Your task to perform on an android device: delete location history Image 0: 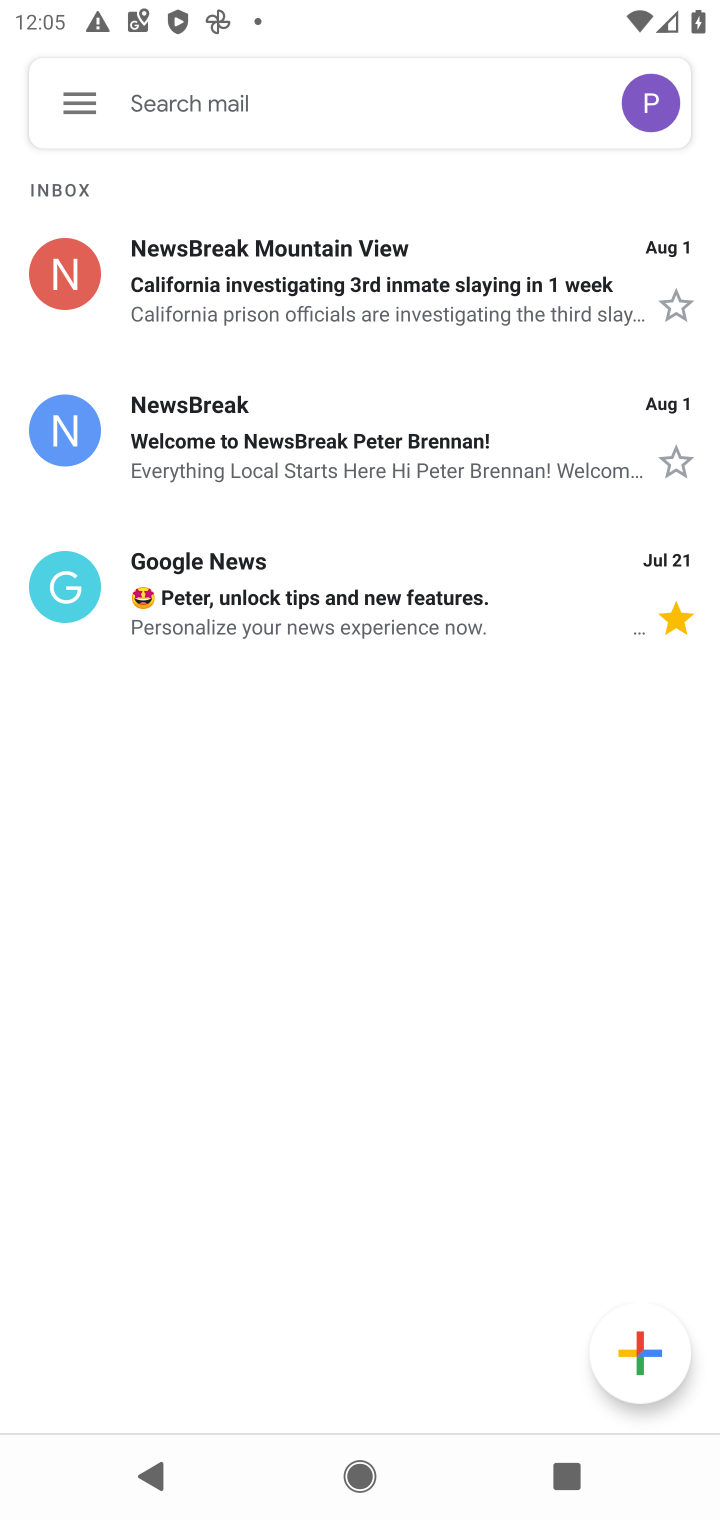
Step 0: press home button
Your task to perform on an android device: delete location history Image 1: 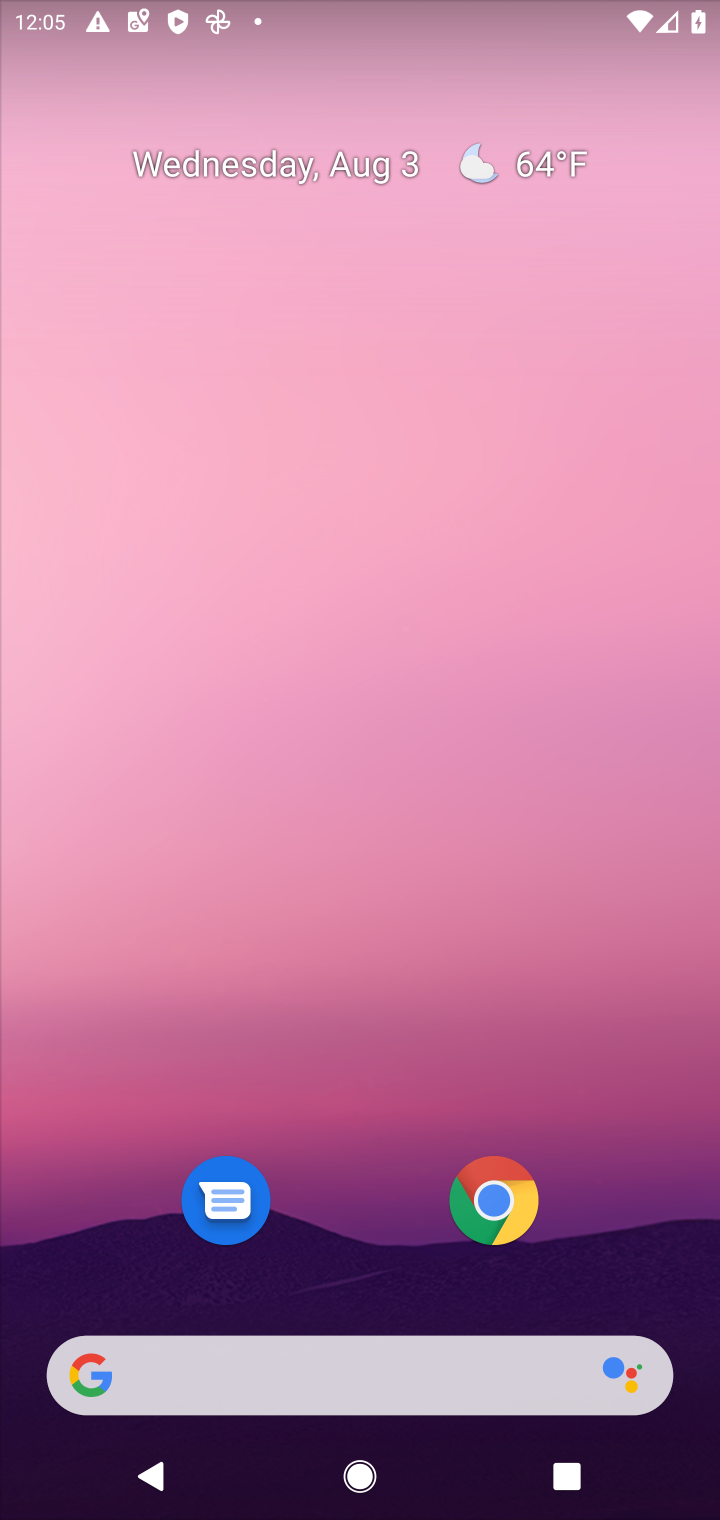
Step 1: drag from (663, 1268) to (534, 506)
Your task to perform on an android device: delete location history Image 2: 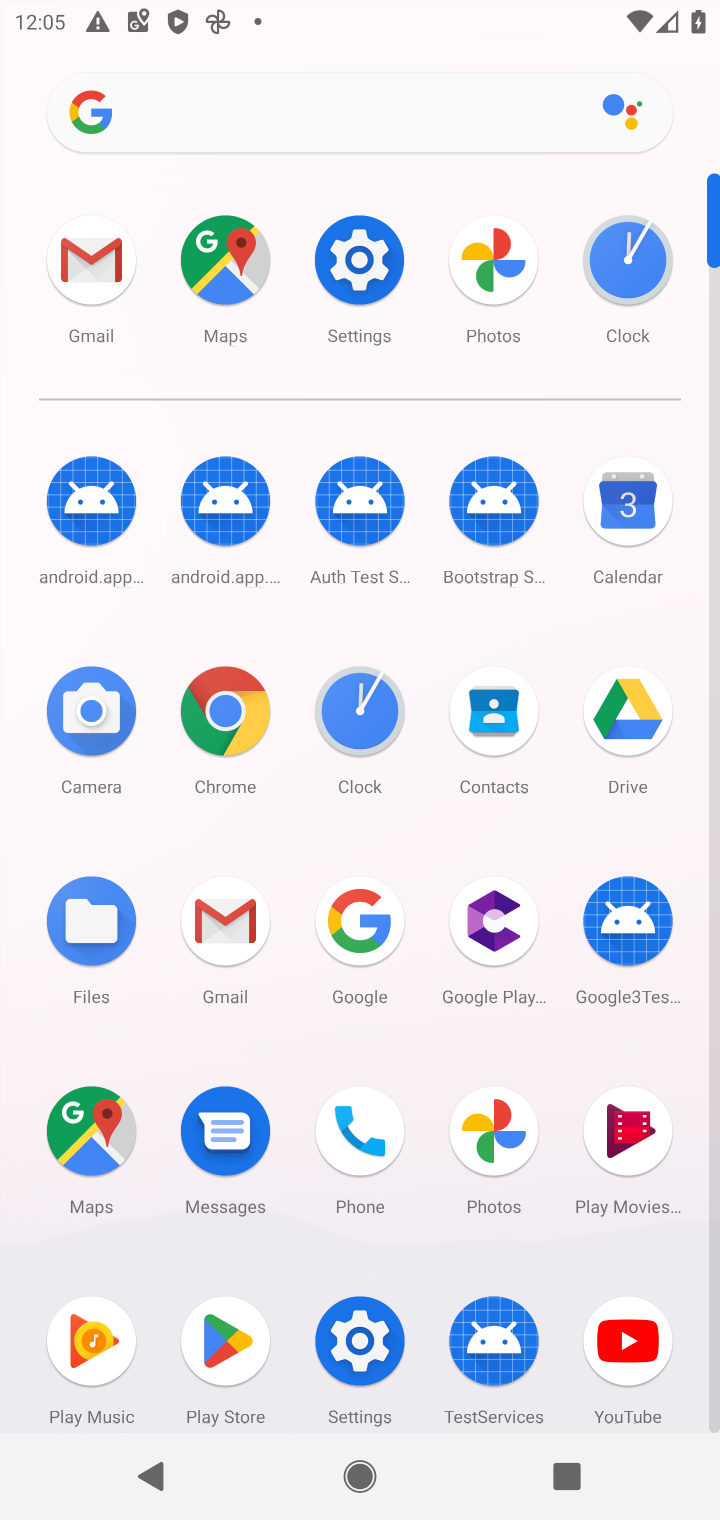
Step 2: click (84, 1129)
Your task to perform on an android device: delete location history Image 3: 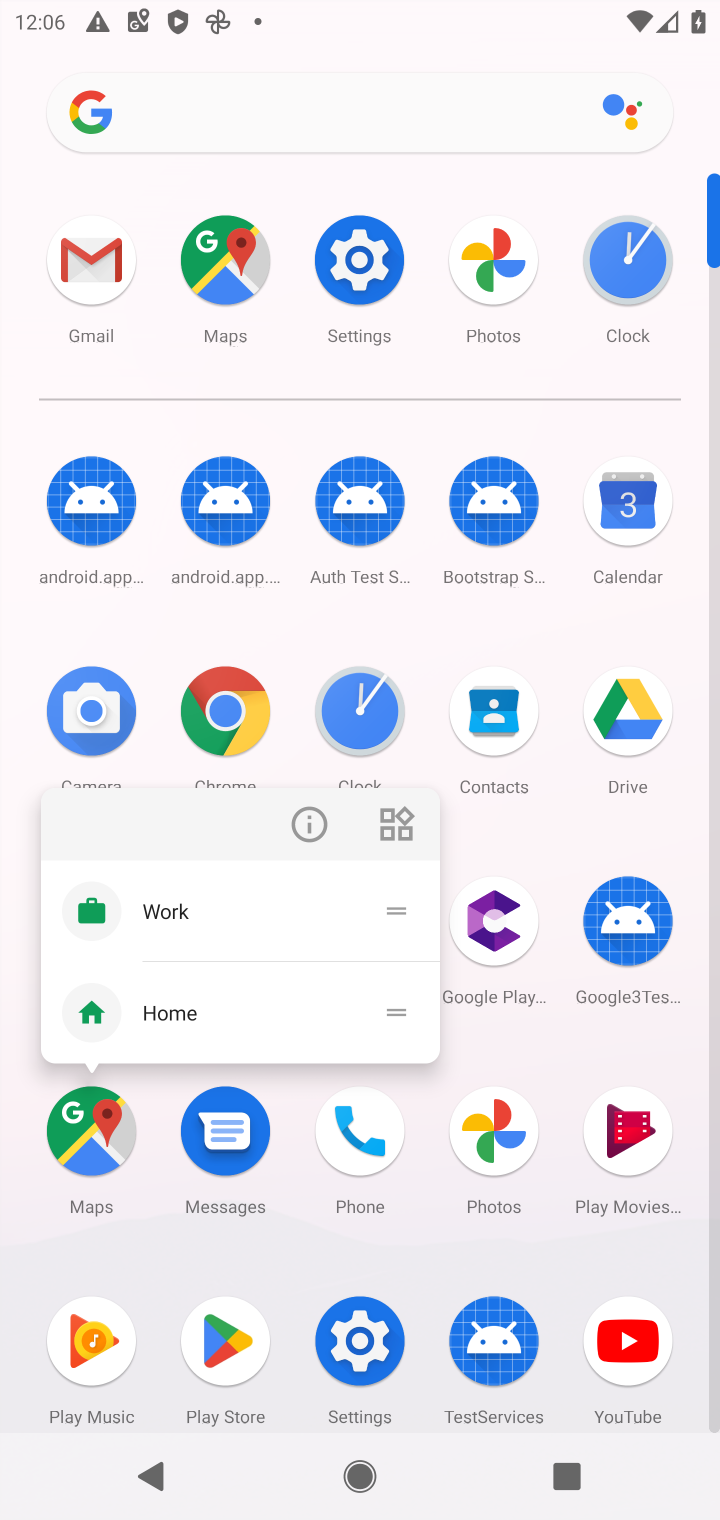
Step 3: click (96, 1130)
Your task to perform on an android device: delete location history Image 4: 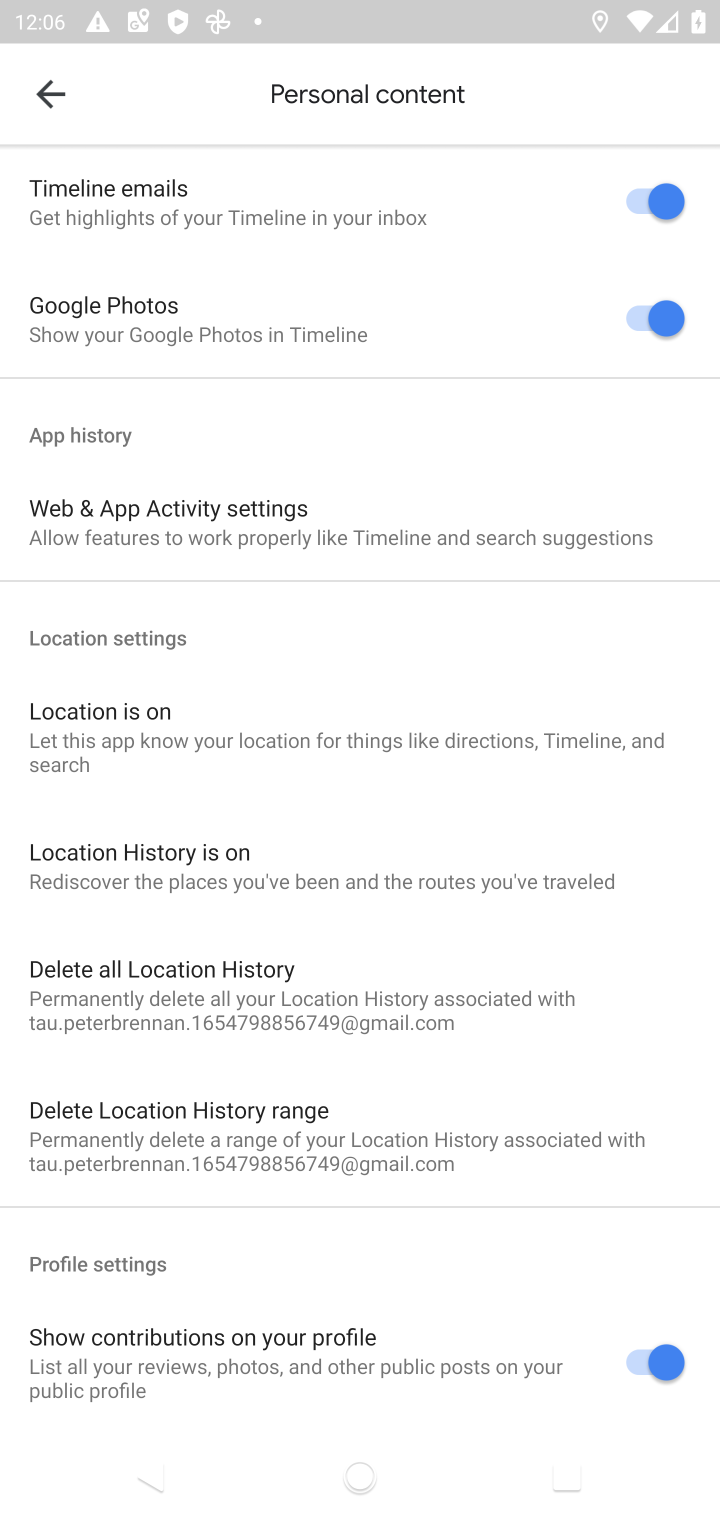
Step 4: click (137, 977)
Your task to perform on an android device: delete location history Image 5: 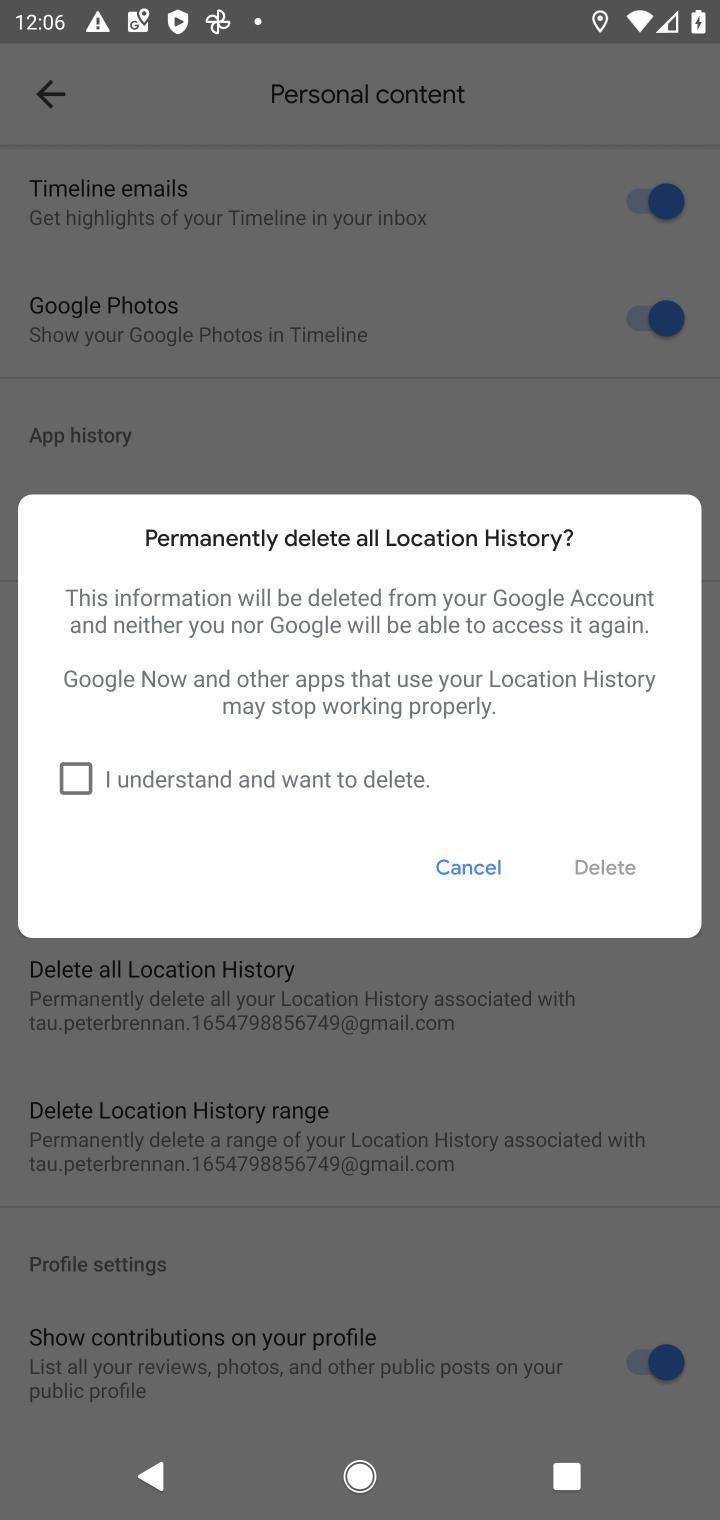
Step 5: click (71, 774)
Your task to perform on an android device: delete location history Image 6: 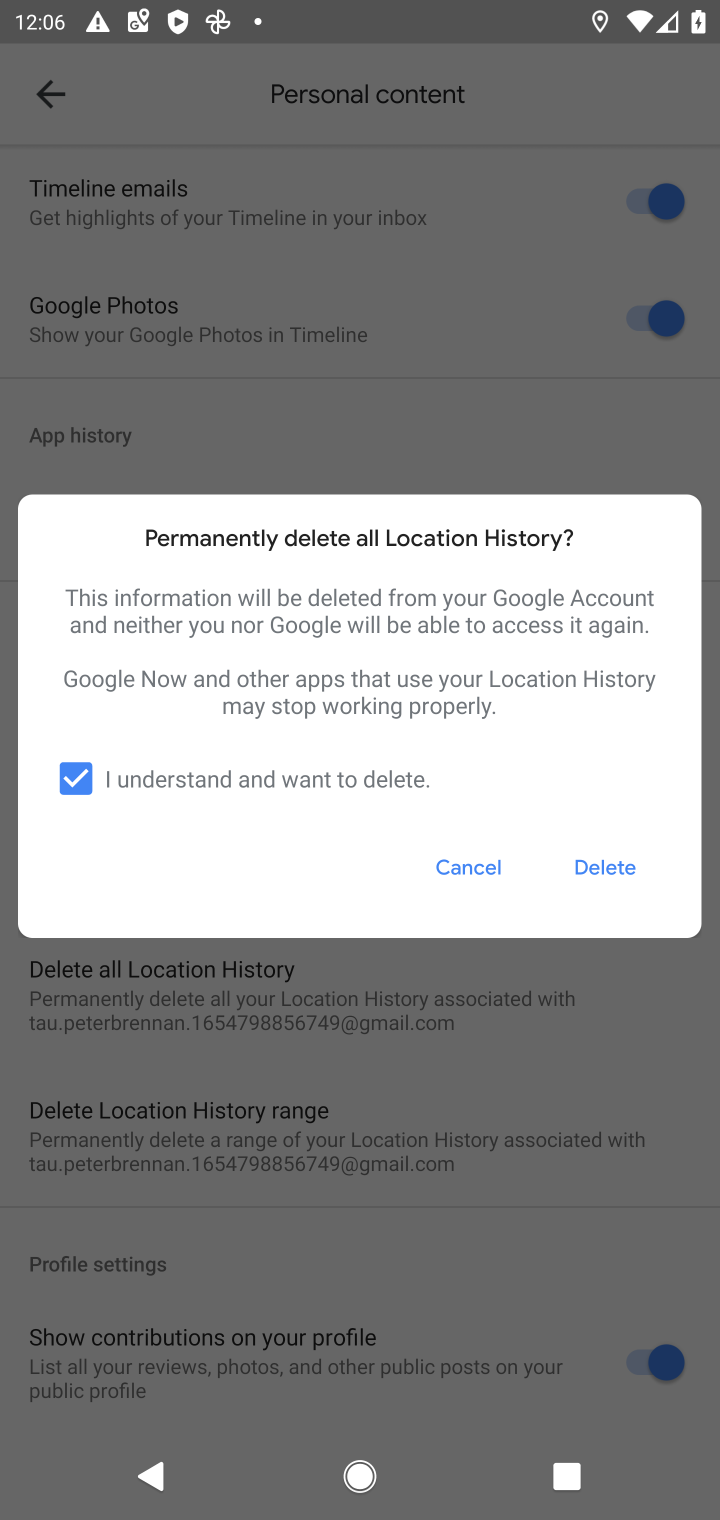
Step 6: click (608, 863)
Your task to perform on an android device: delete location history Image 7: 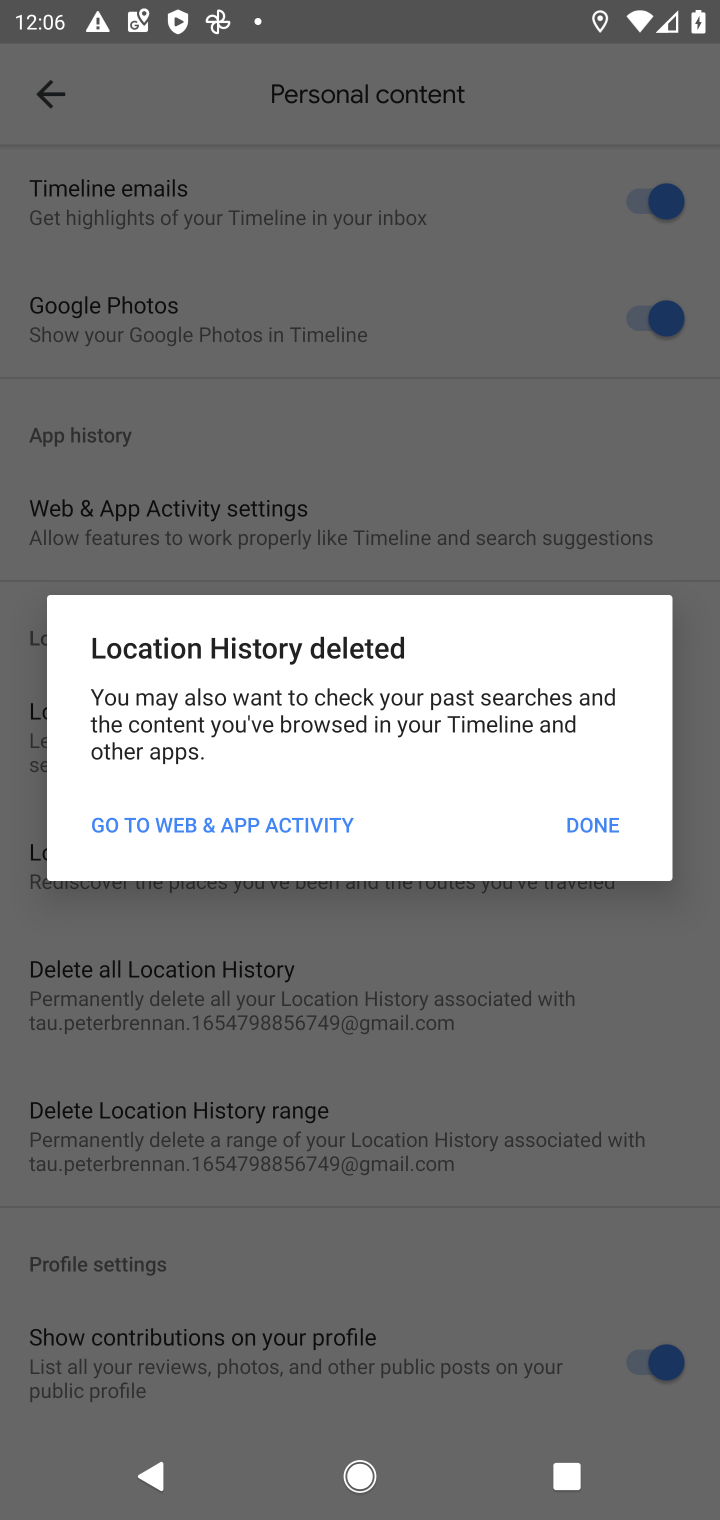
Step 7: click (581, 819)
Your task to perform on an android device: delete location history Image 8: 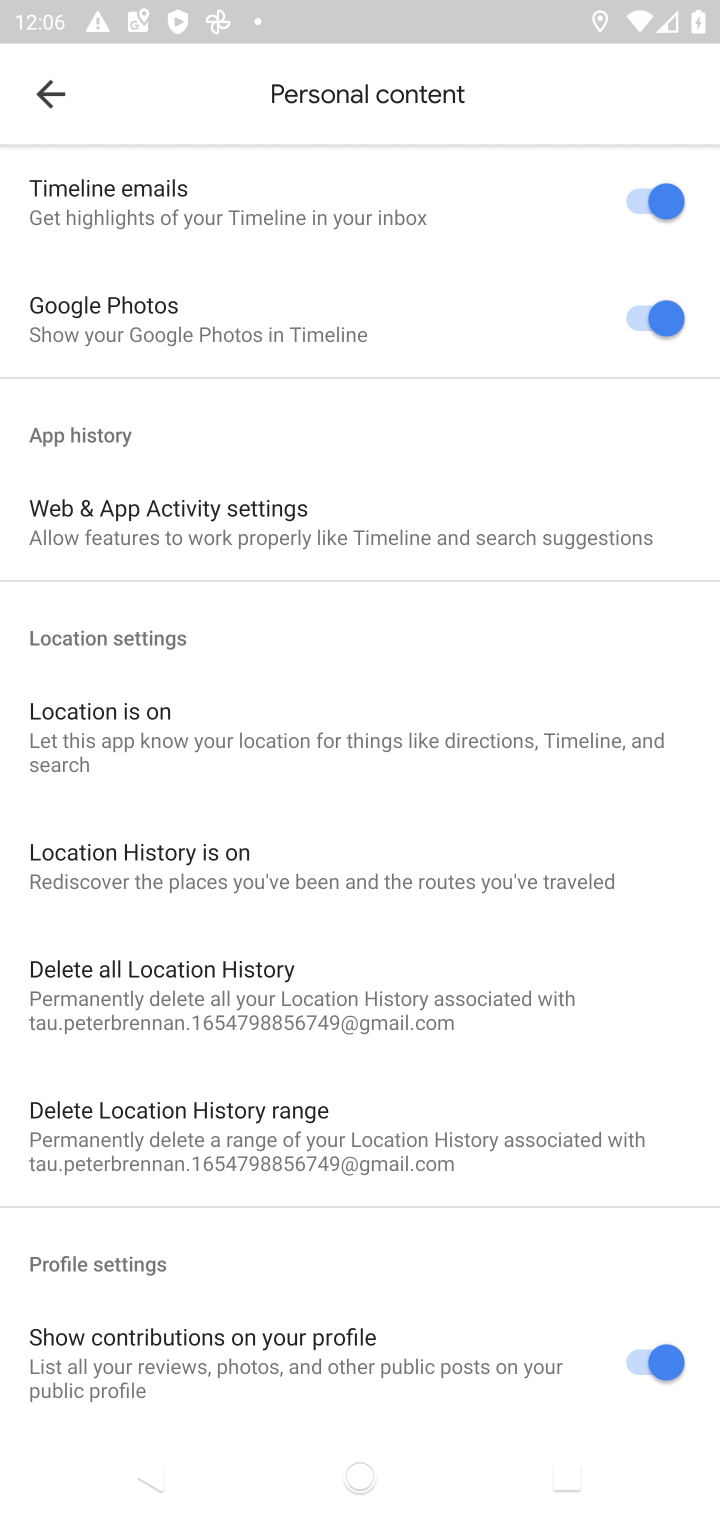
Step 8: task complete